Your task to perform on an android device: turn off location Image 0: 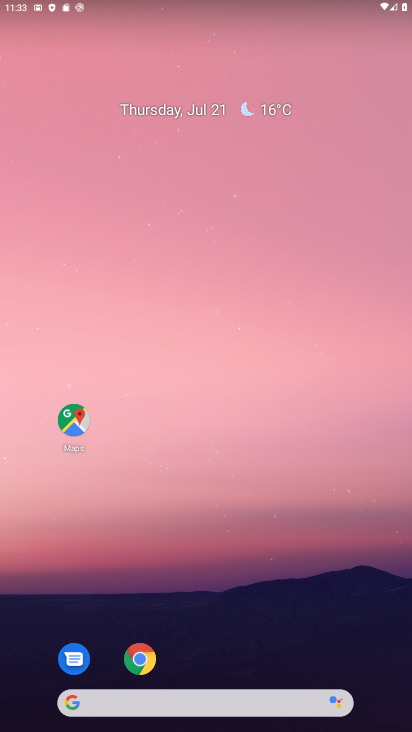
Step 0: drag from (279, 658) to (287, 161)
Your task to perform on an android device: turn off location Image 1: 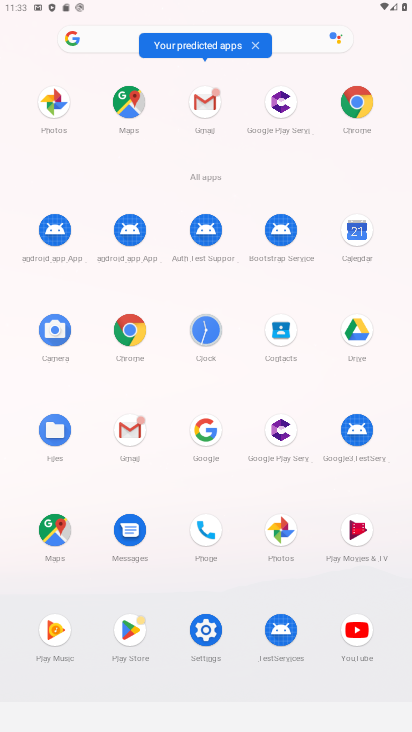
Step 1: click (205, 634)
Your task to perform on an android device: turn off location Image 2: 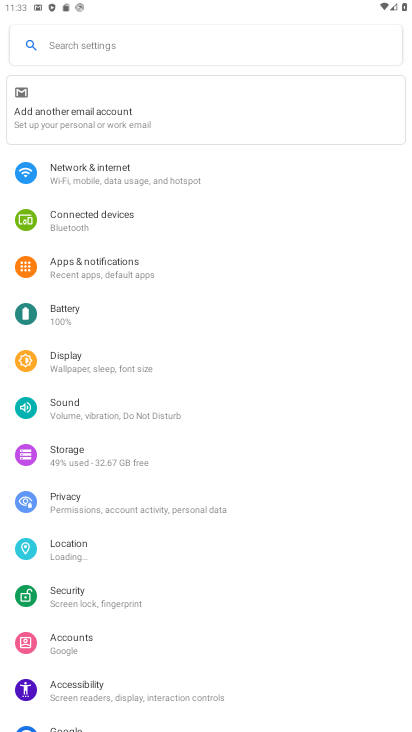
Step 2: click (95, 546)
Your task to perform on an android device: turn off location Image 3: 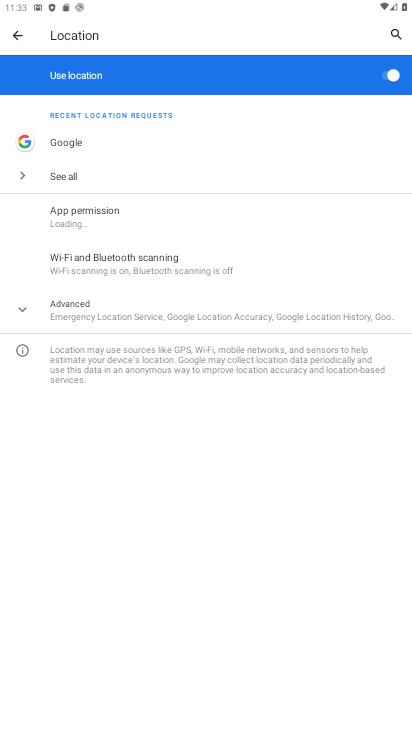
Step 3: click (389, 80)
Your task to perform on an android device: turn off location Image 4: 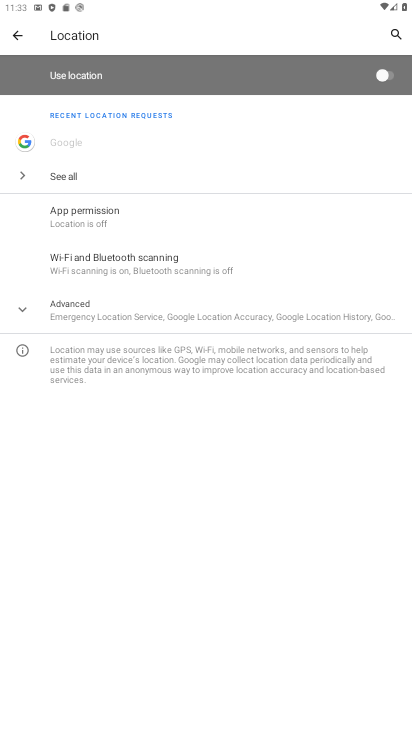
Step 4: task complete